Your task to perform on an android device: open app "Move to iOS" (install if not already installed) and go to login screen Image 0: 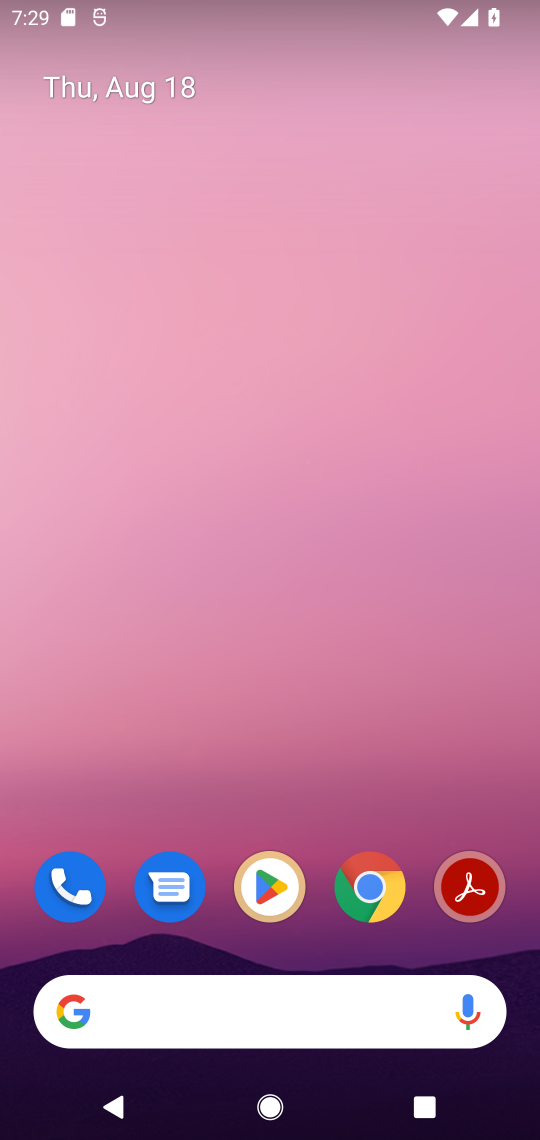
Step 0: drag from (339, 967) to (323, 204)
Your task to perform on an android device: open app "Move to iOS" (install if not already installed) and go to login screen Image 1: 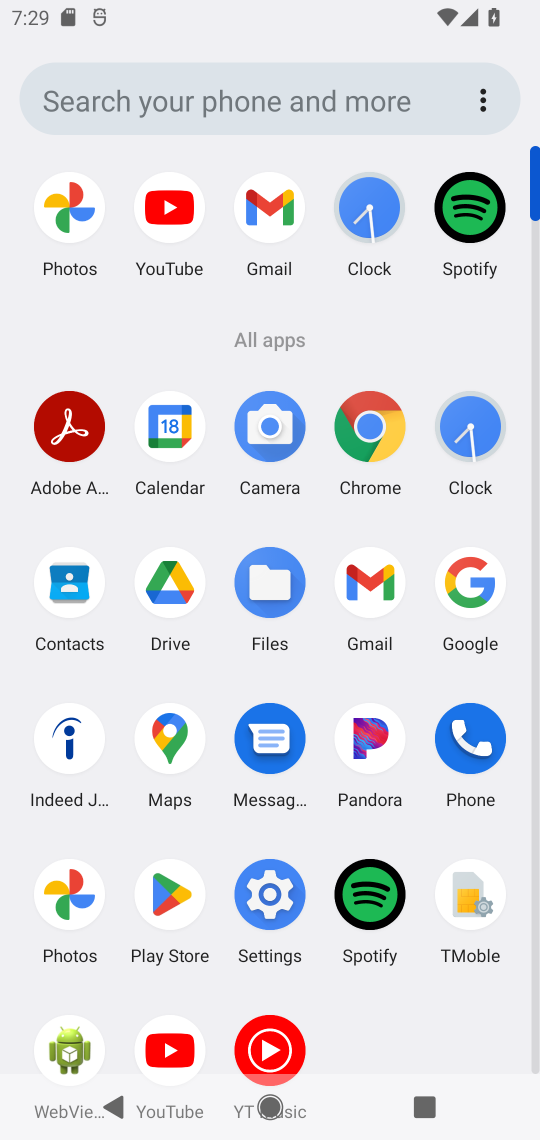
Step 1: click (164, 893)
Your task to perform on an android device: open app "Move to iOS" (install if not already installed) and go to login screen Image 2: 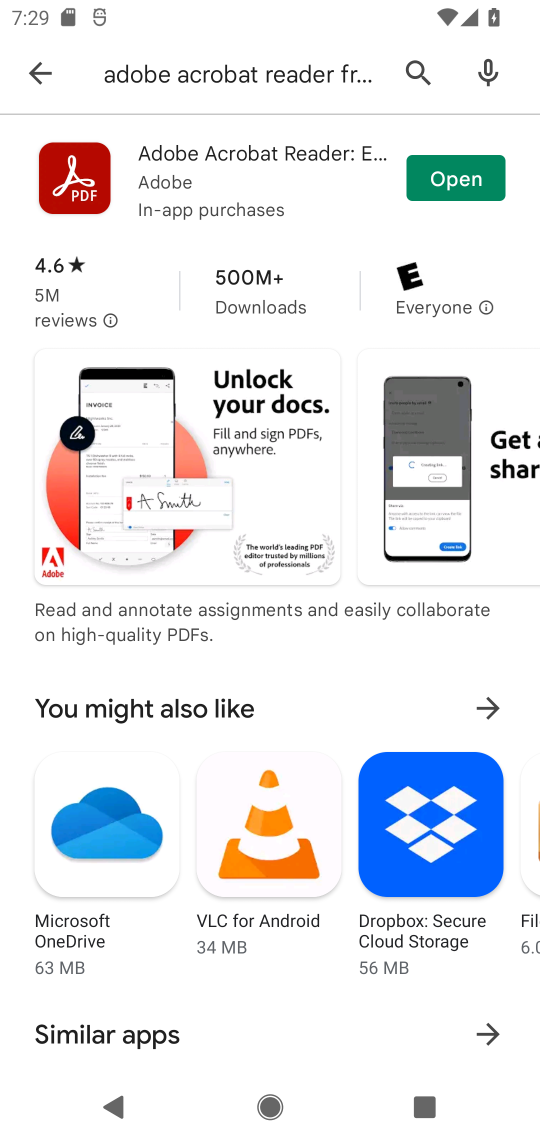
Step 2: click (414, 65)
Your task to perform on an android device: open app "Move to iOS" (install if not already installed) and go to login screen Image 3: 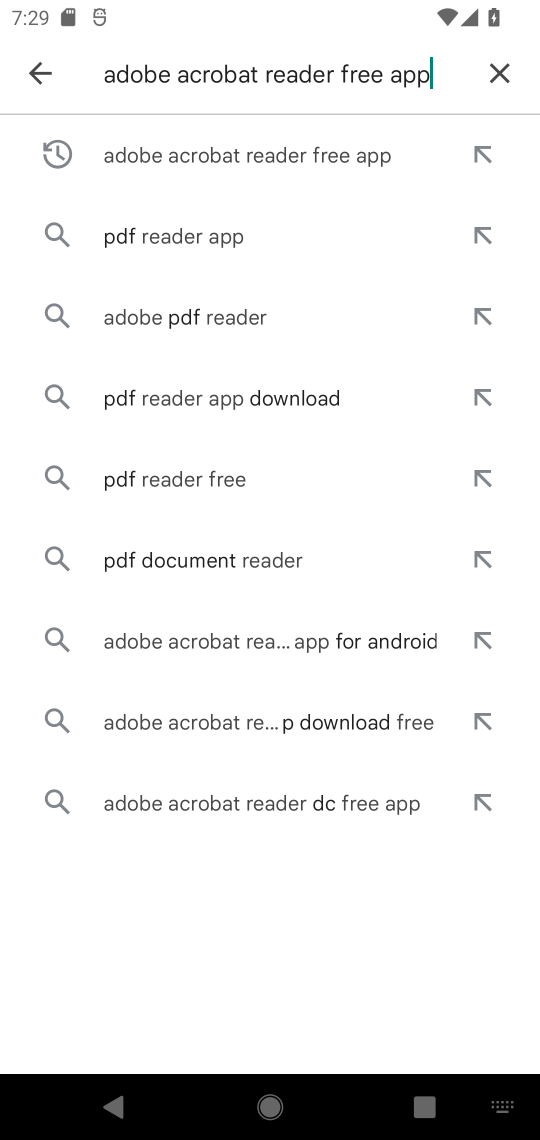
Step 3: click (497, 74)
Your task to perform on an android device: open app "Move to iOS" (install if not already installed) and go to login screen Image 4: 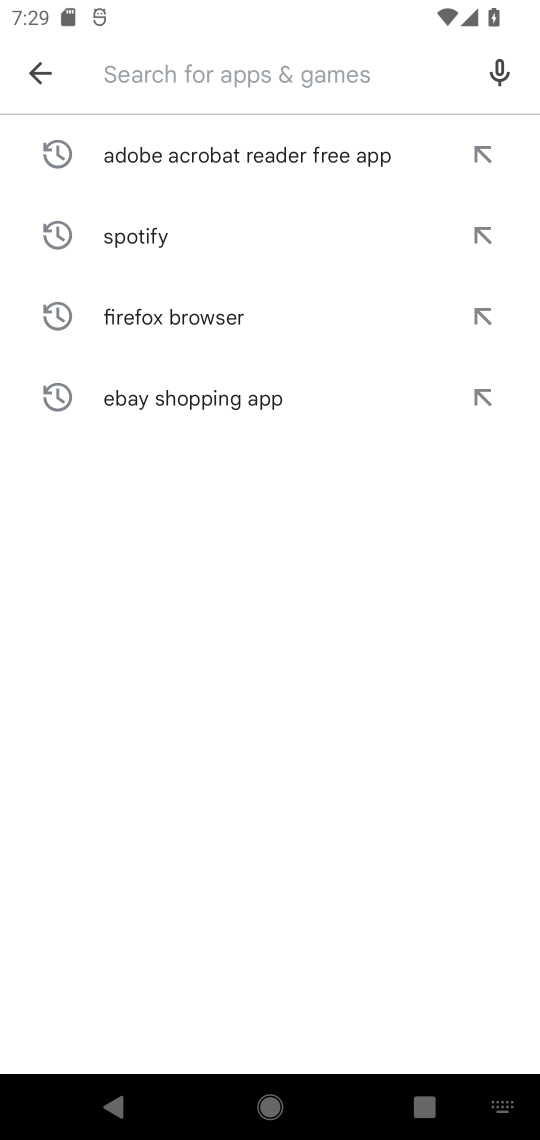
Step 4: type "Move to iOS"
Your task to perform on an android device: open app "Move to iOS" (install if not already installed) and go to login screen Image 5: 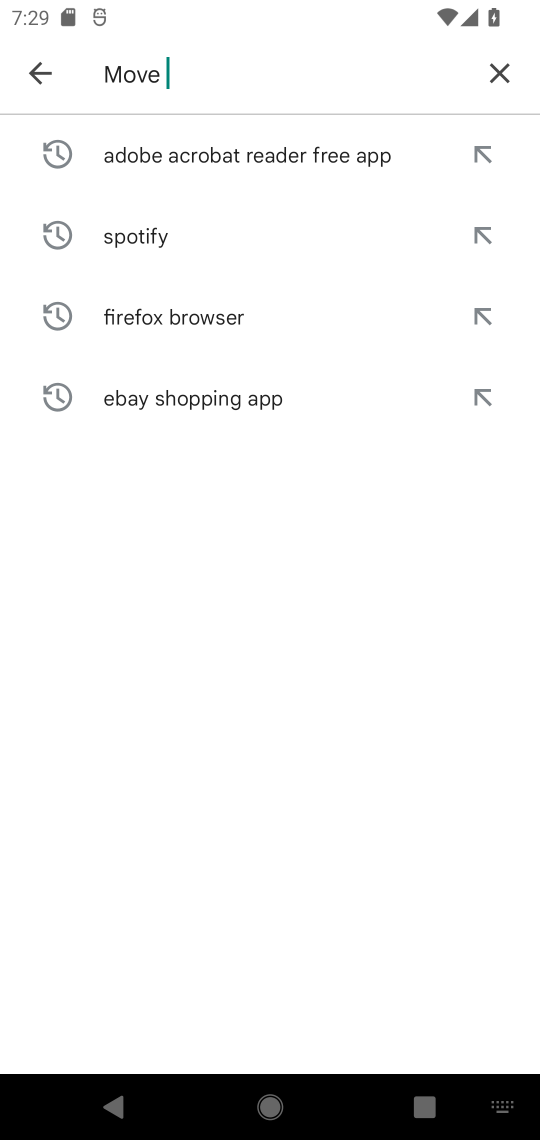
Step 5: type ""
Your task to perform on an android device: open app "Move to iOS" (install if not already installed) and go to login screen Image 6: 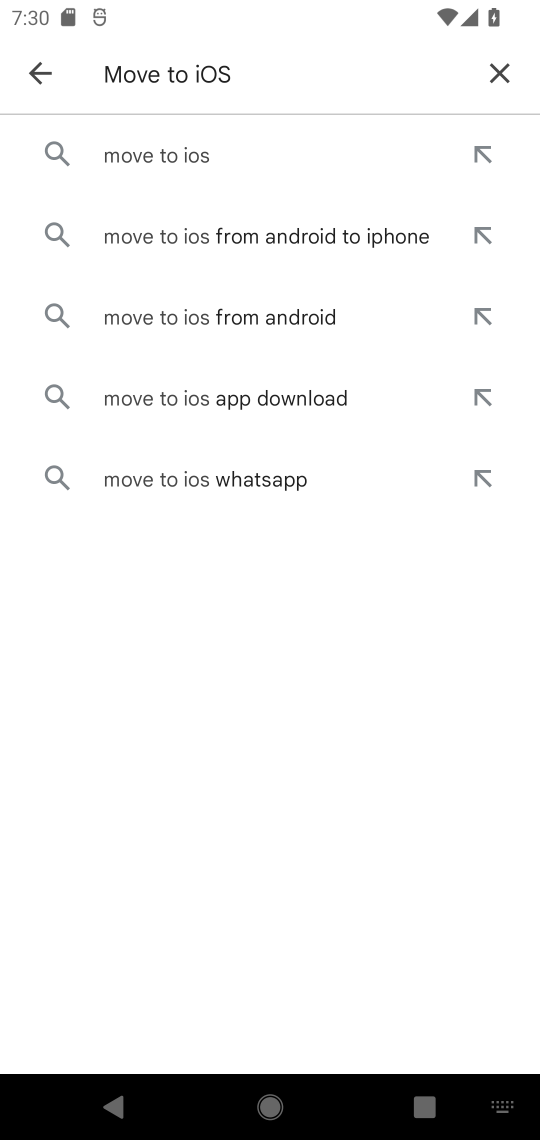
Step 6: click (138, 161)
Your task to perform on an android device: open app "Move to iOS" (install if not already installed) and go to login screen Image 7: 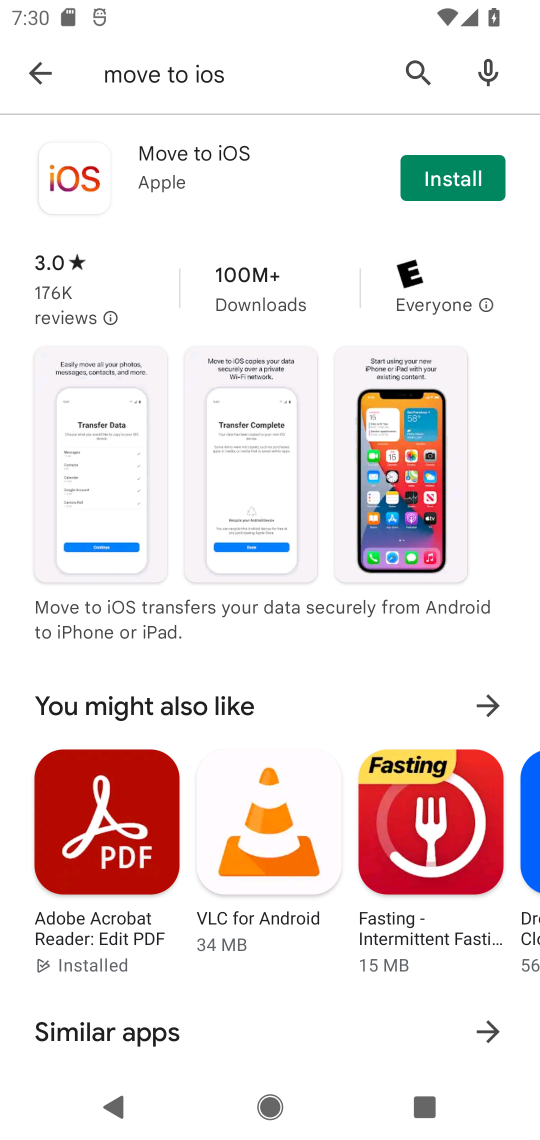
Step 7: click (476, 186)
Your task to perform on an android device: open app "Move to iOS" (install if not already installed) and go to login screen Image 8: 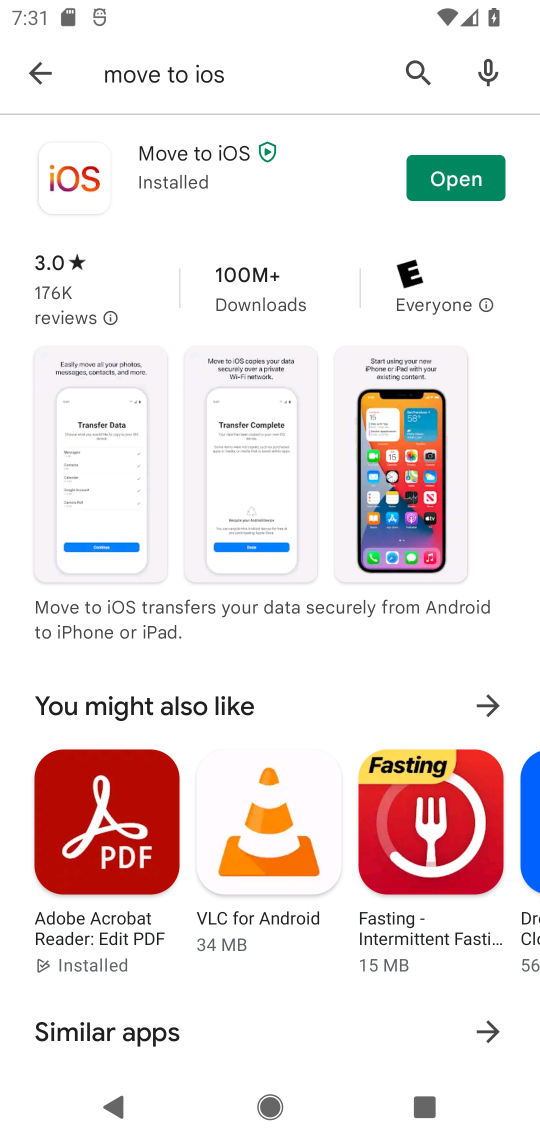
Step 8: click (461, 167)
Your task to perform on an android device: open app "Move to iOS" (install if not already installed) and go to login screen Image 9: 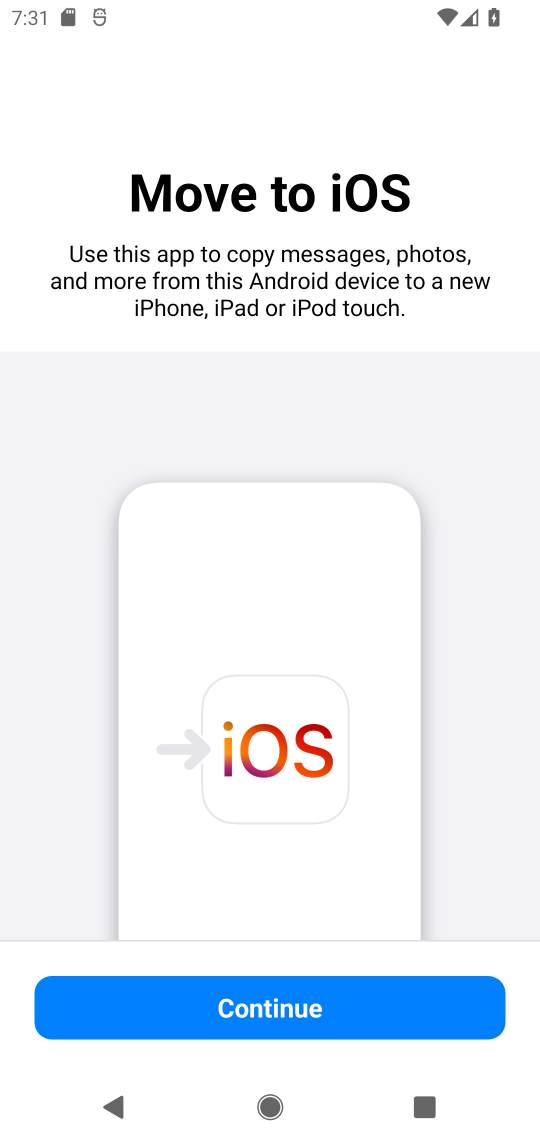
Step 9: click (254, 1007)
Your task to perform on an android device: open app "Move to iOS" (install if not already installed) and go to login screen Image 10: 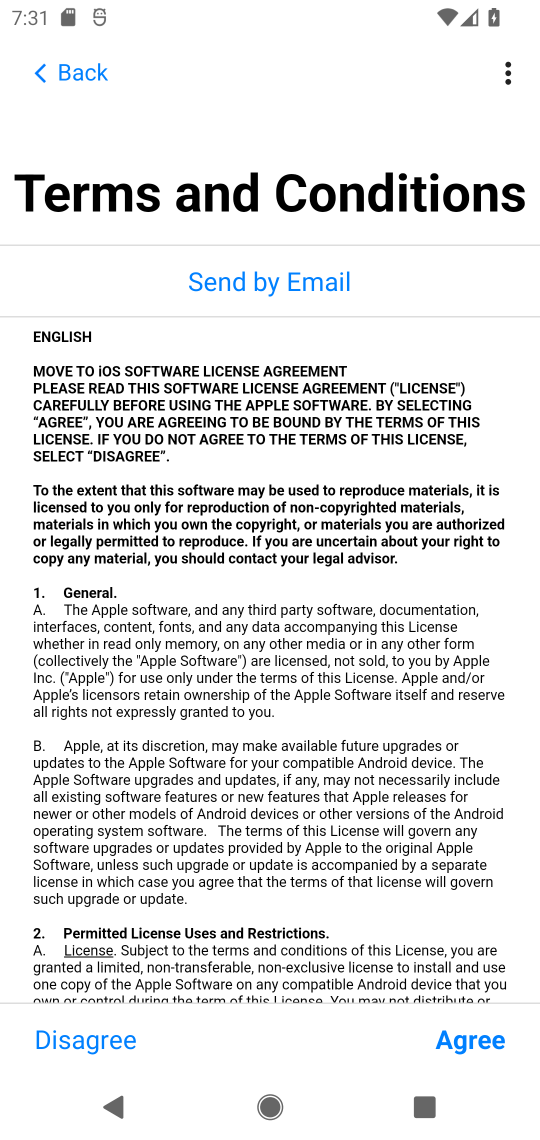
Step 10: click (447, 1035)
Your task to perform on an android device: open app "Move to iOS" (install if not already installed) and go to login screen Image 11: 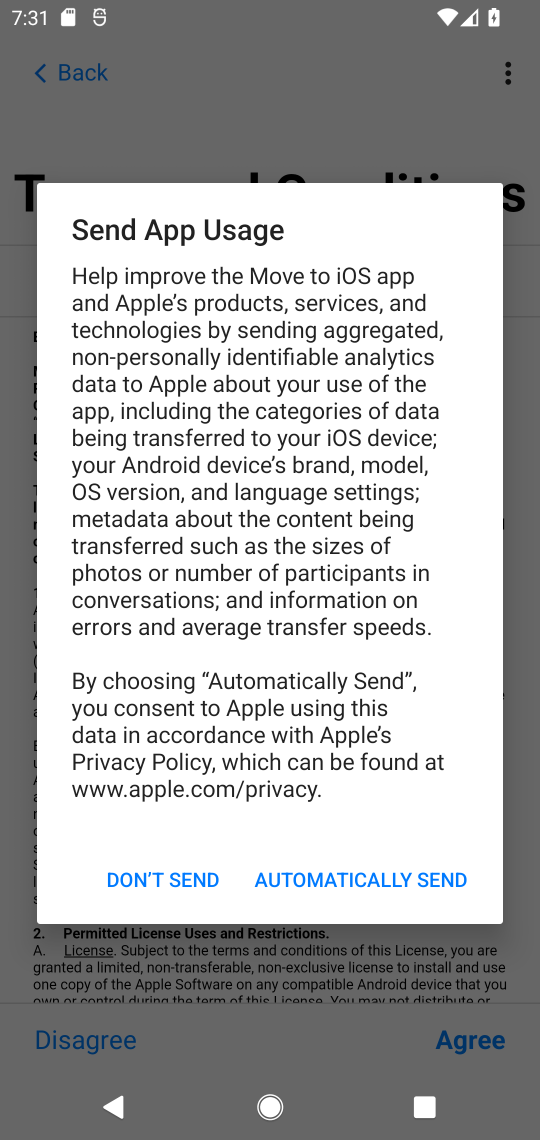
Step 11: click (165, 882)
Your task to perform on an android device: open app "Move to iOS" (install if not already installed) and go to login screen Image 12: 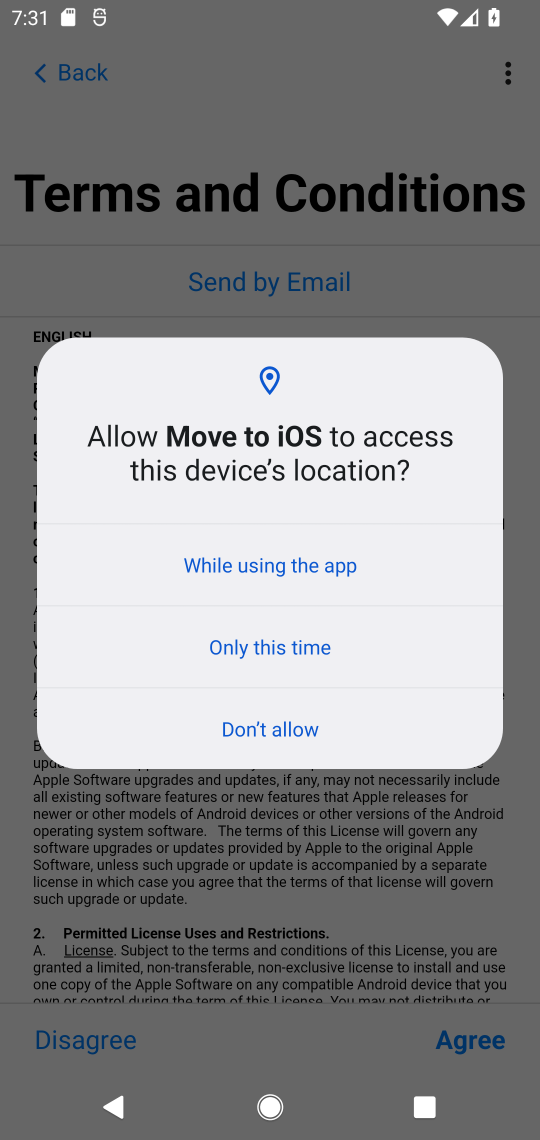
Step 12: click (293, 574)
Your task to perform on an android device: open app "Move to iOS" (install if not already installed) and go to login screen Image 13: 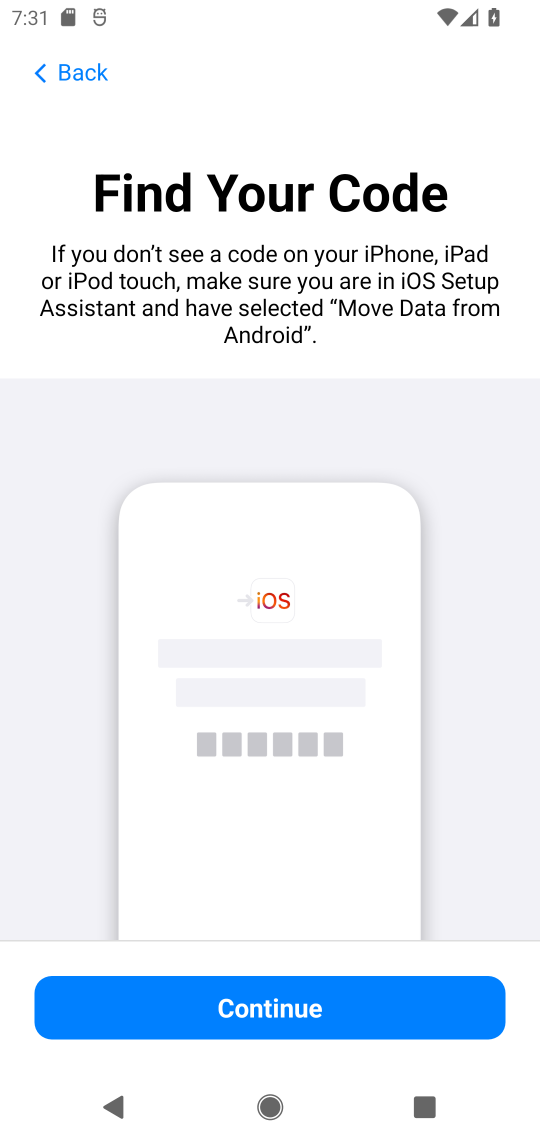
Step 13: click (332, 1015)
Your task to perform on an android device: open app "Move to iOS" (install if not already installed) and go to login screen Image 14: 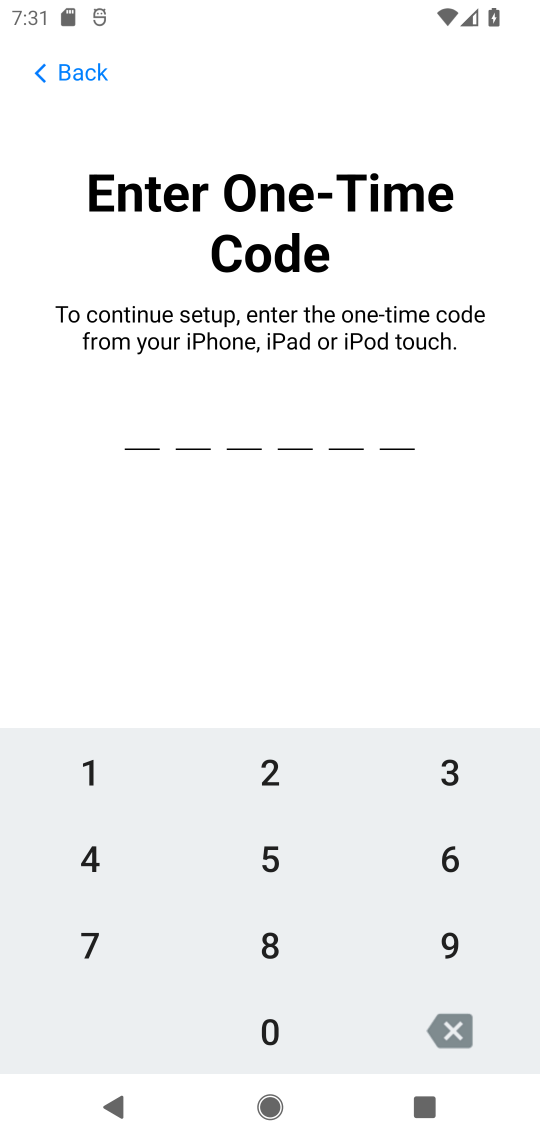
Step 14: task complete